Your task to perform on an android device: toggle show notifications on the lock screen Image 0: 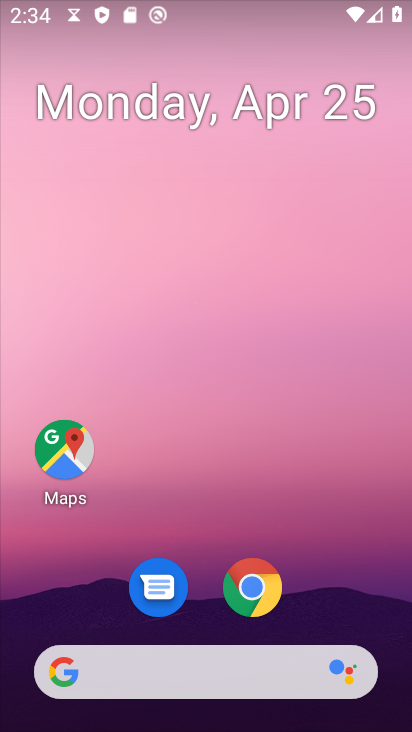
Step 0: drag from (213, 637) to (204, 303)
Your task to perform on an android device: toggle show notifications on the lock screen Image 1: 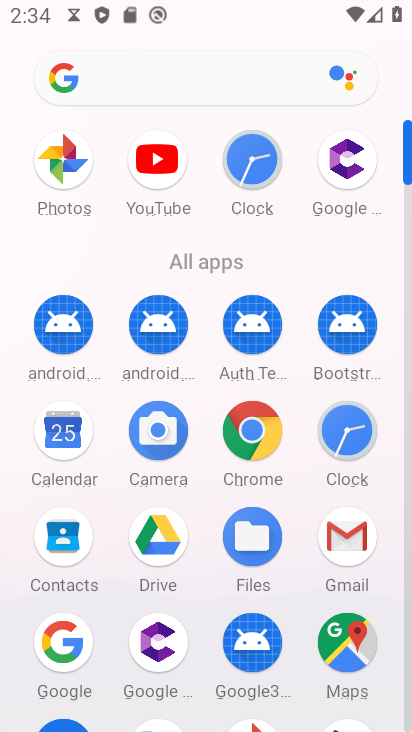
Step 1: drag from (202, 585) to (204, 320)
Your task to perform on an android device: toggle show notifications on the lock screen Image 2: 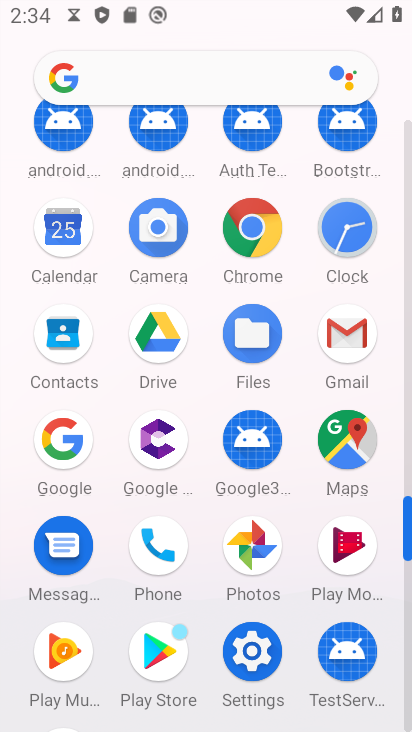
Step 2: click (249, 647)
Your task to perform on an android device: toggle show notifications on the lock screen Image 3: 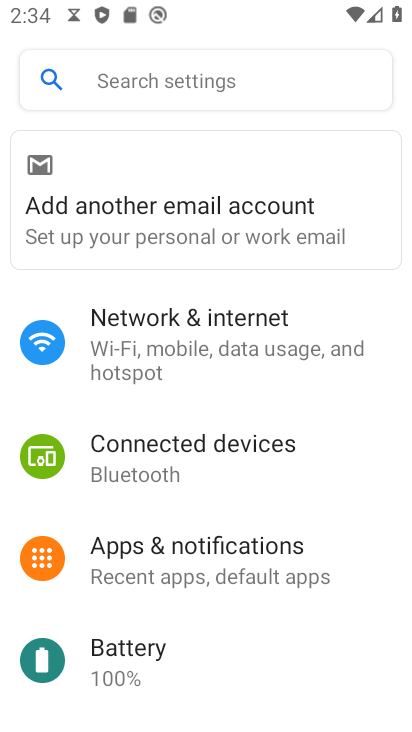
Step 3: drag from (206, 620) to (209, 323)
Your task to perform on an android device: toggle show notifications on the lock screen Image 4: 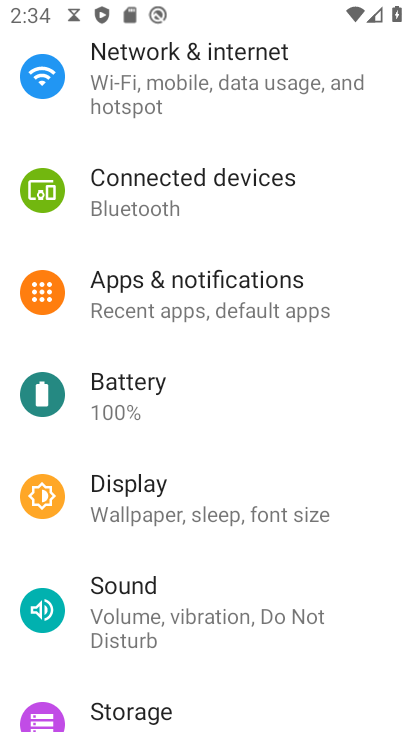
Step 4: drag from (174, 249) to (159, 539)
Your task to perform on an android device: toggle show notifications on the lock screen Image 5: 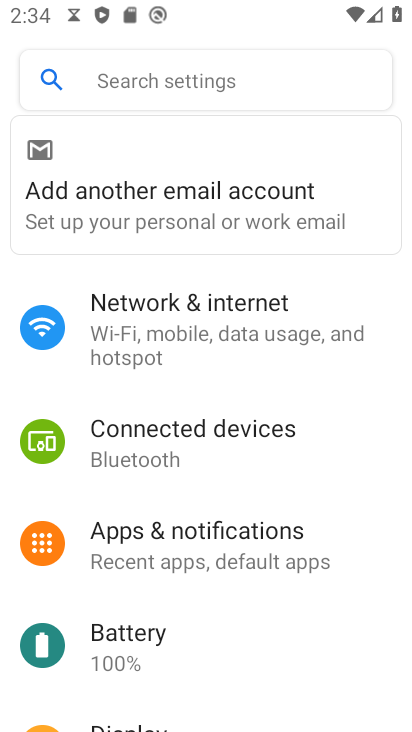
Step 5: drag from (141, 491) to (149, 171)
Your task to perform on an android device: toggle show notifications on the lock screen Image 6: 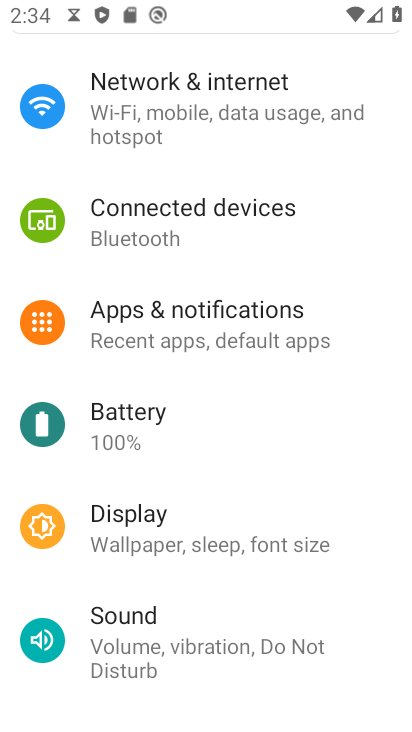
Step 6: drag from (176, 556) to (215, 410)
Your task to perform on an android device: toggle show notifications on the lock screen Image 7: 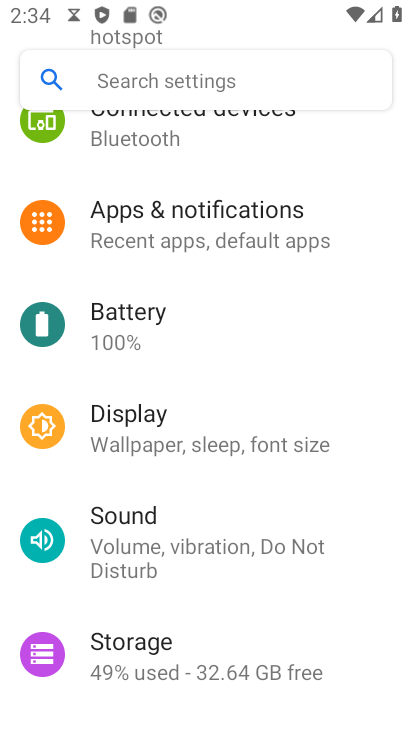
Step 7: click (154, 245)
Your task to perform on an android device: toggle show notifications on the lock screen Image 8: 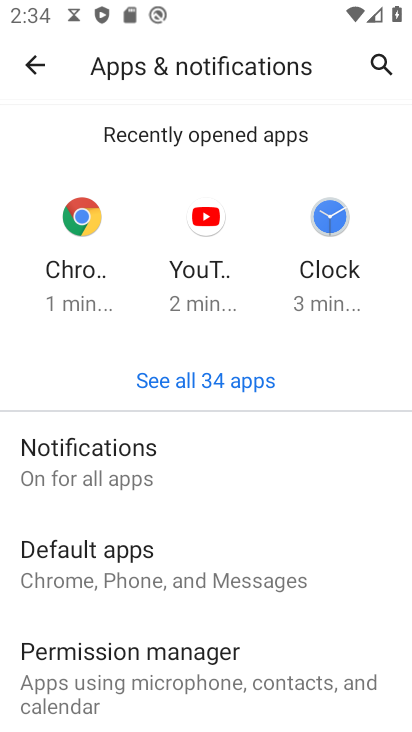
Step 8: click (177, 453)
Your task to perform on an android device: toggle show notifications on the lock screen Image 9: 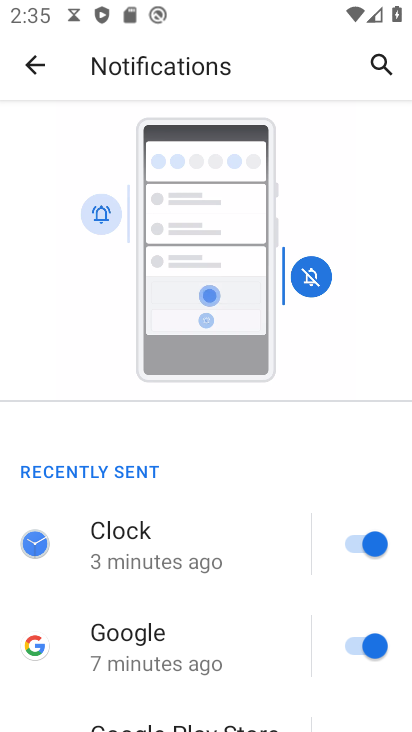
Step 9: drag from (166, 477) to (150, 25)
Your task to perform on an android device: toggle show notifications on the lock screen Image 10: 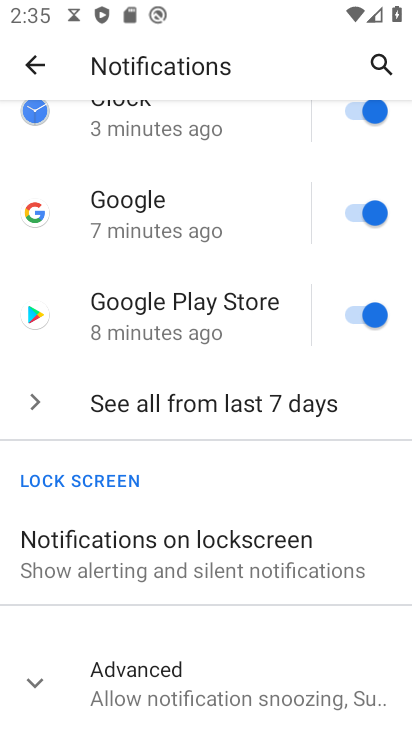
Step 10: click (108, 578)
Your task to perform on an android device: toggle show notifications on the lock screen Image 11: 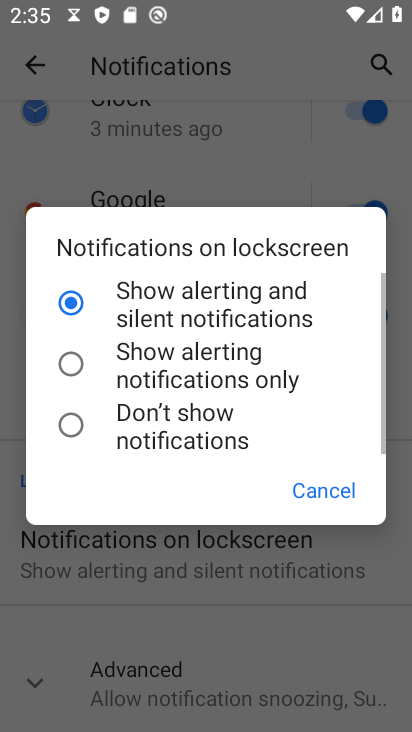
Step 11: click (139, 357)
Your task to perform on an android device: toggle show notifications on the lock screen Image 12: 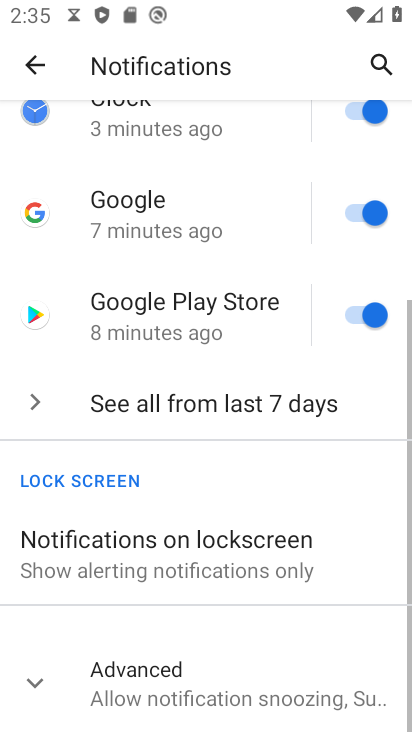
Step 12: task complete